Your task to perform on an android device: Open calendar and show me the fourth week of next month Image 0: 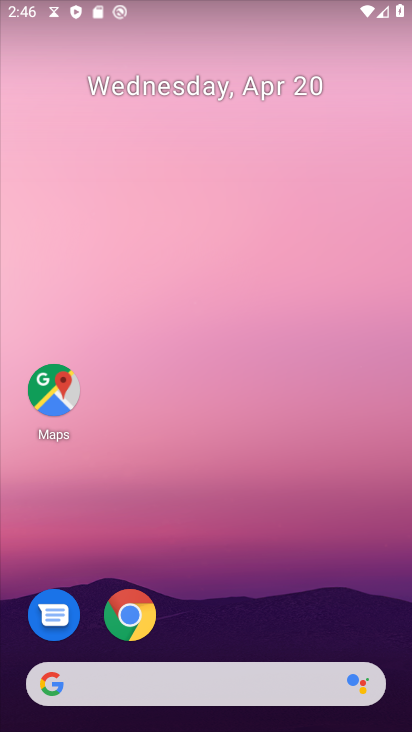
Step 0: click (337, 39)
Your task to perform on an android device: Open calendar and show me the fourth week of next month Image 1: 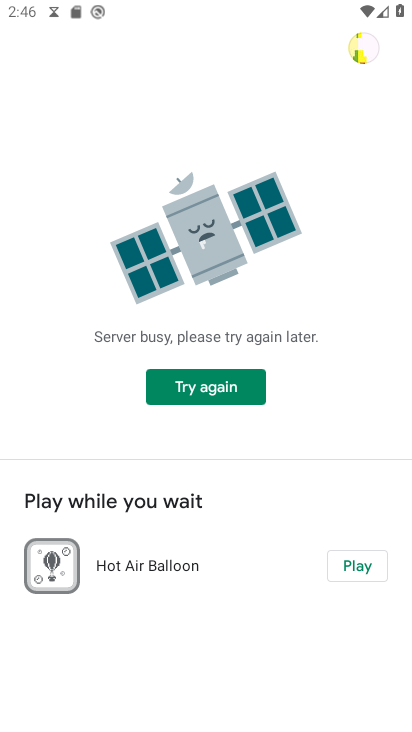
Step 1: press home button
Your task to perform on an android device: Open calendar and show me the fourth week of next month Image 2: 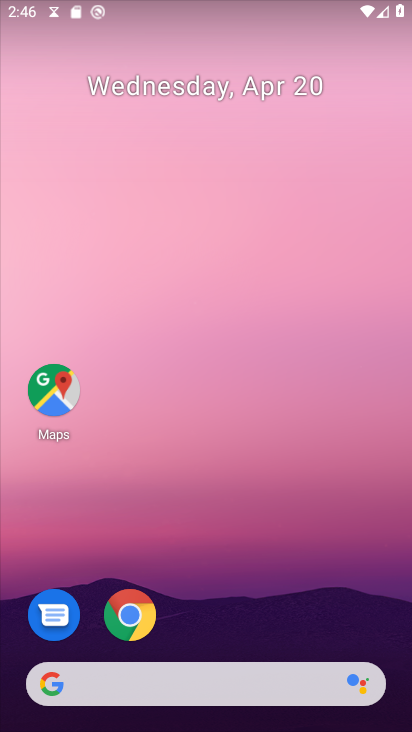
Step 2: drag from (198, 640) to (213, 81)
Your task to perform on an android device: Open calendar and show me the fourth week of next month Image 3: 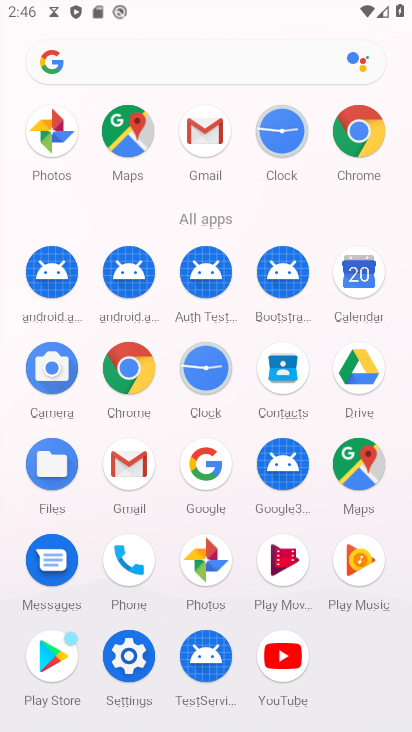
Step 3: click (351, 275)
Your task to perform on an android device: Open calendar and show me the fourth week of next month Image 4: 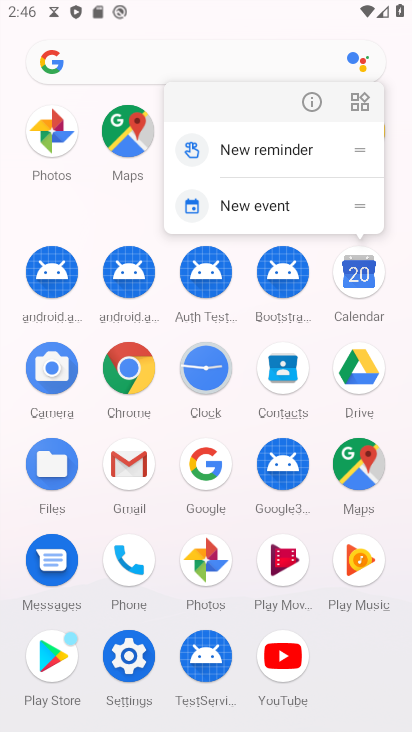
Step 4: click (311, 95)
Your task to perform on an android device: Open calendar and show me the fourth week of next month Image 5: 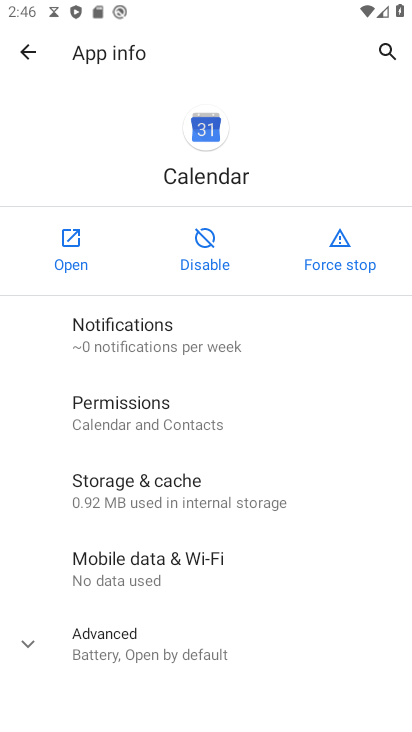
Step 5: click (61, 236)
Your task to perform on an android device: Open calendar and show me the fourth week of next month Image 6: 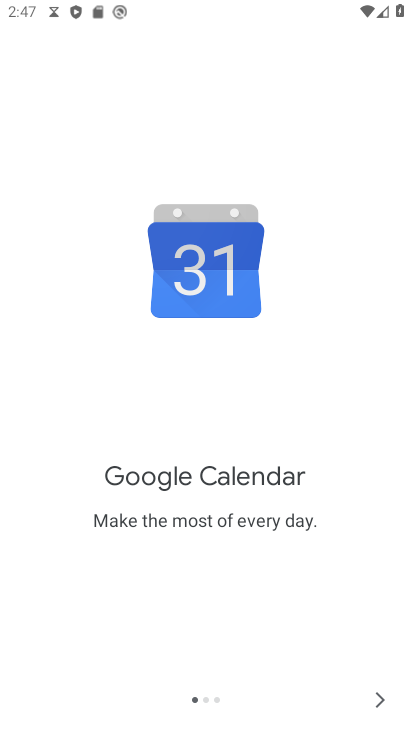
Step 6: click (380, 689)
Your task to perform on an android device: Open calendar and show me the fourth week of next month Image 7: 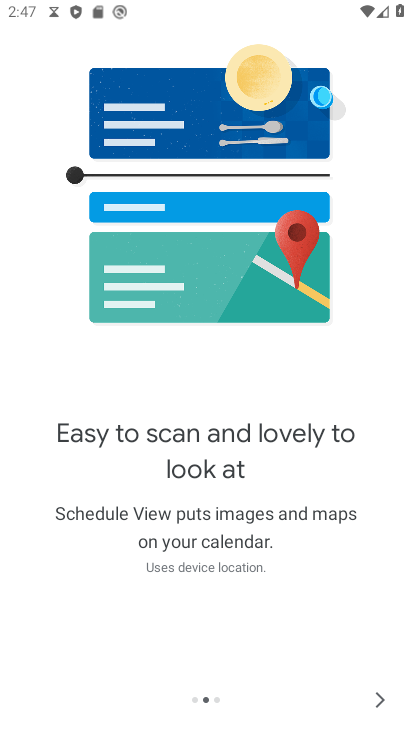
Step 7: click (378, 691)
Your task to perform on an android device: Open calendar and show me the fourth week of next month Image 8: 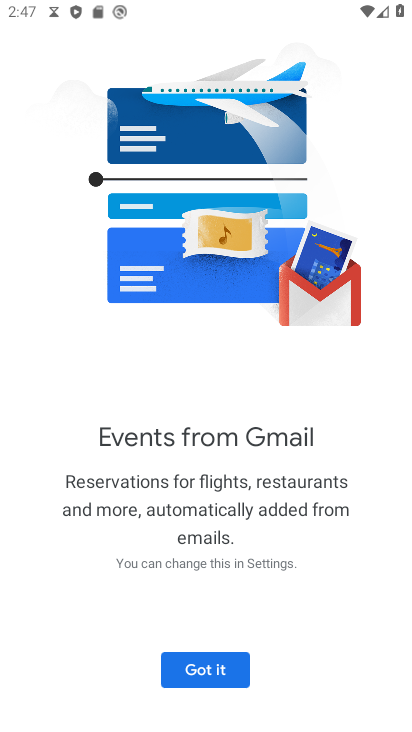
Step 8: click (197, 666)
Your task to perform on an android device: Open calendar and show me the fourth week of next month Image 9: 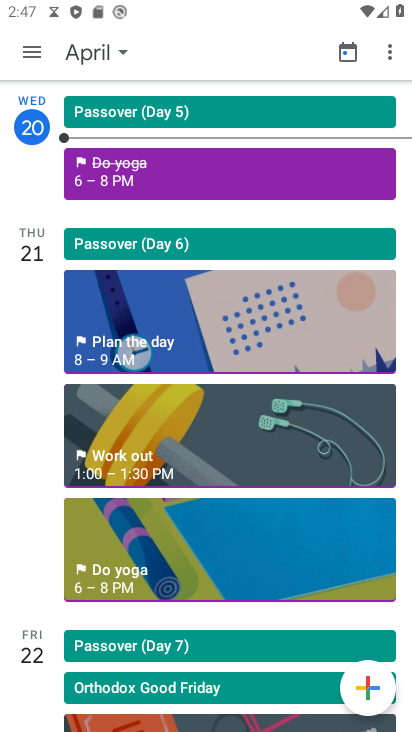
Step 9: drag from (243, 183) to (281, 339)
Your task to perform on an android device: Open calendar and show me the fourth week of next month Image 10: 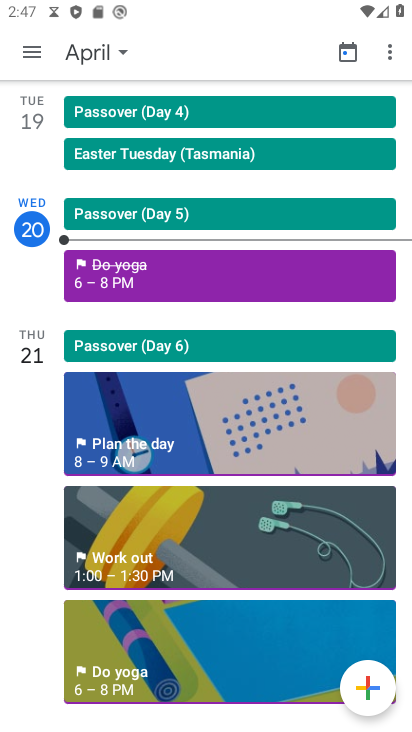
Step 10: click (108, 27)
Your task to perform on an android device: Open calendar and show me the fourth week of next month Image 11: 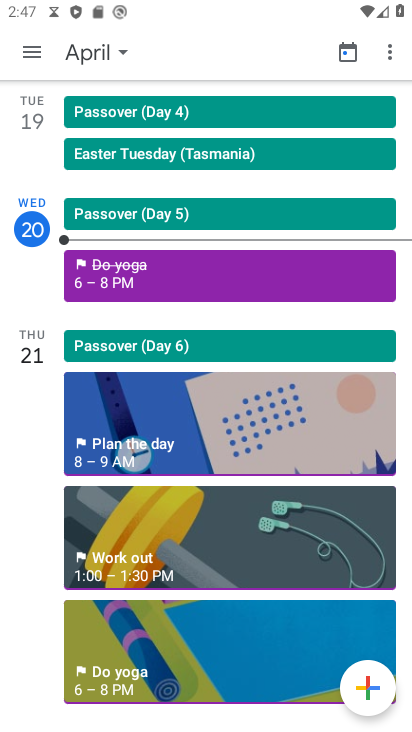
Step 11: click (115, 49)
Your task to perform on an android device: Open calendar and show me the fourth week of next month Image 12: 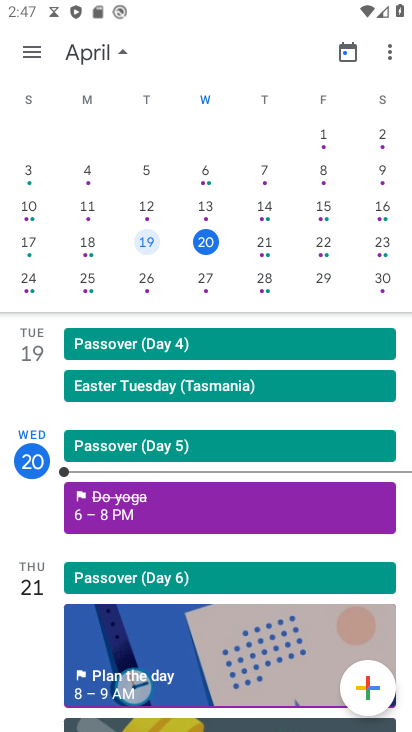
Step 12: drag from (354, 209) to (50, 188)
Your task to perform on an android device: Open calendar and show me the fourth week of next month Image 13: 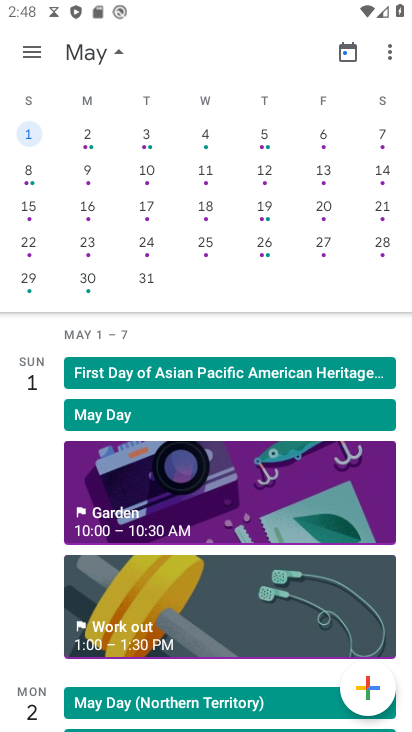
Step 13: click (214, 241)
Your task to perform on an android device: Open calendar and show me the fourth week of next month Image 14: 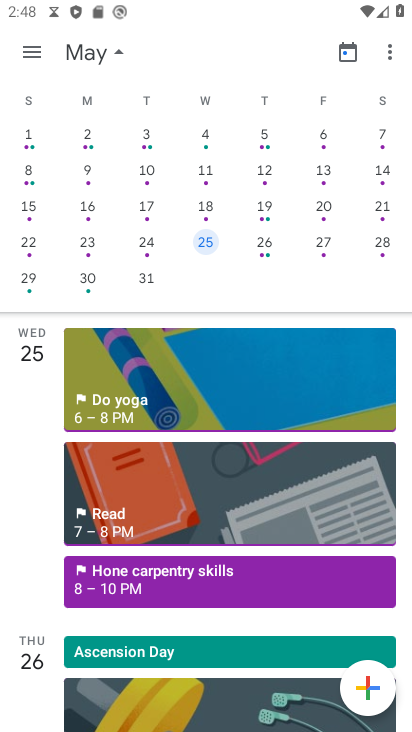
Step 14: task complete